Your task to perform on an android device: When is my next meeting? Image 0: 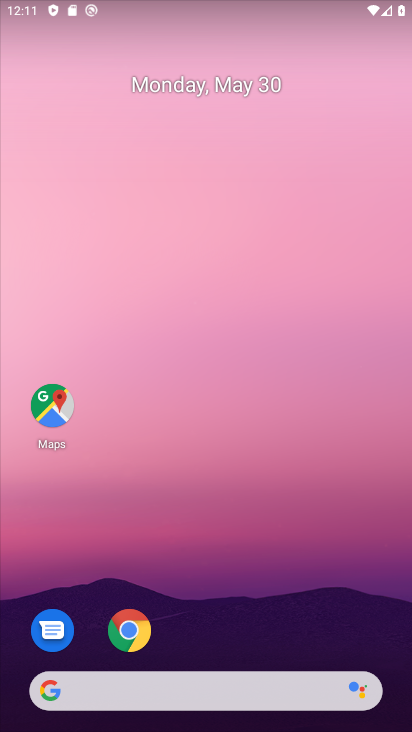
Step 0: press home button
Your task to perform on an android device: When is my next meeting? Image 1: 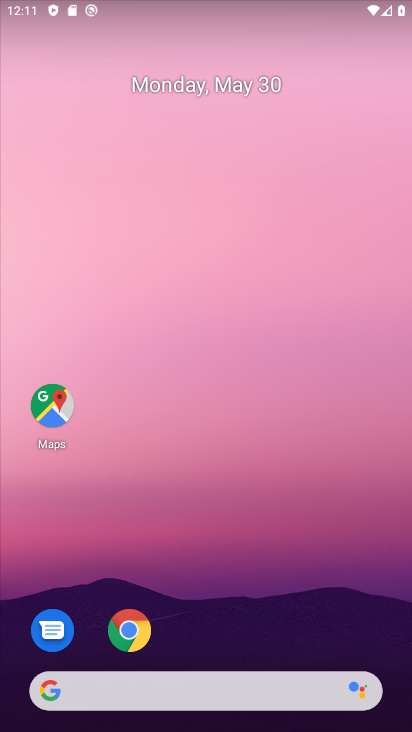
Step 1: drag from (139, 690) to (266, 36)
Your task to perform on an android device: When is my next meeting? Image 2: 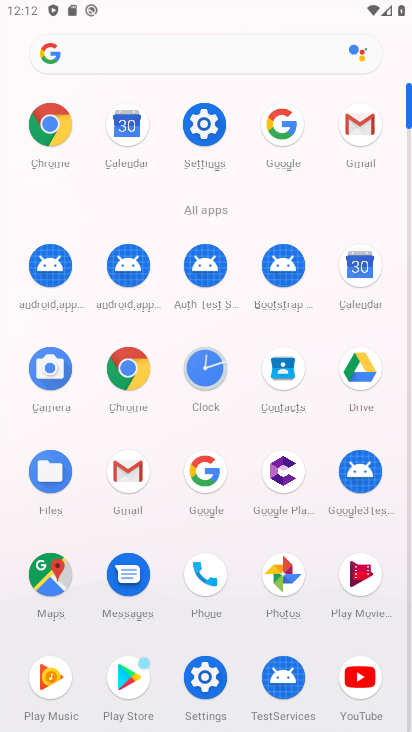
Step 2: click (361, 266)
Your task to perform on an android device: When is my next meeting? Image 3: 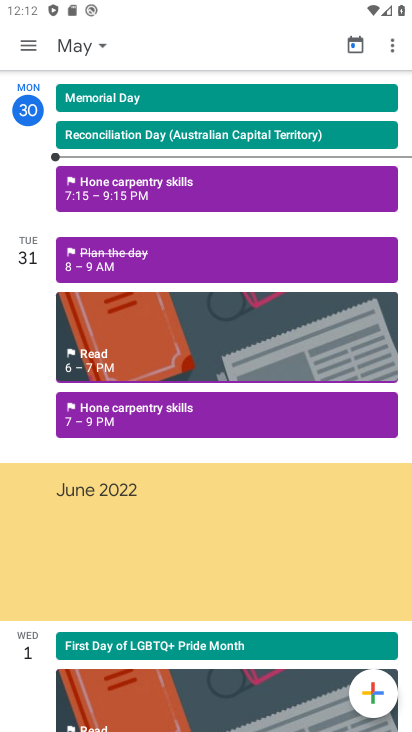
Step 3: task complete